Your task to perform on an android device: When is my next meeting? Image 0: 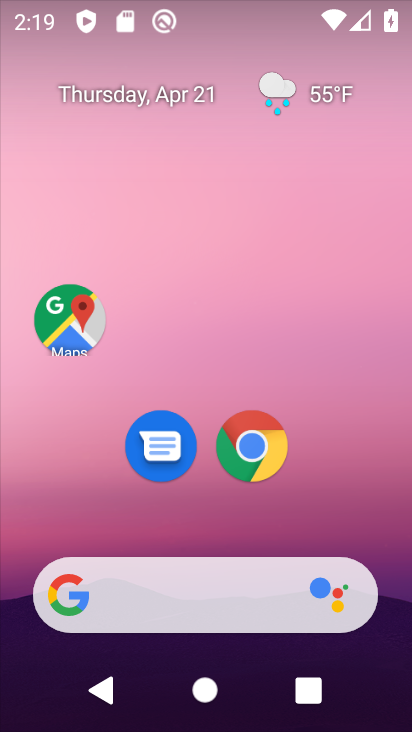
Step 0: drag from (203, 669) to (201, 93)
Your task to perform on an android device: When is my next meeting? Image 1: 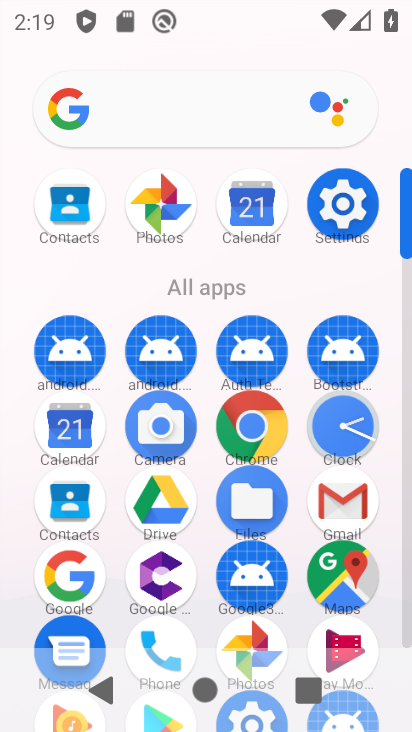
Step 1: click (68, 433)
Your task to perform on an android device: When is my next meeting? Image 2: 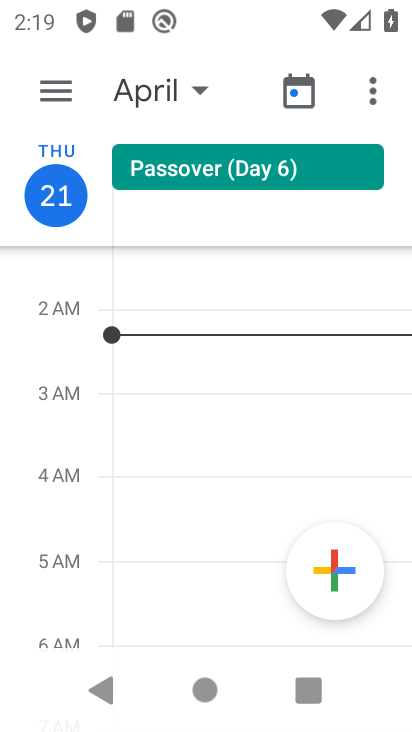
Step 2: click (56, 87)
Your task to perform on an android device: When is my next meeting? Image 3: 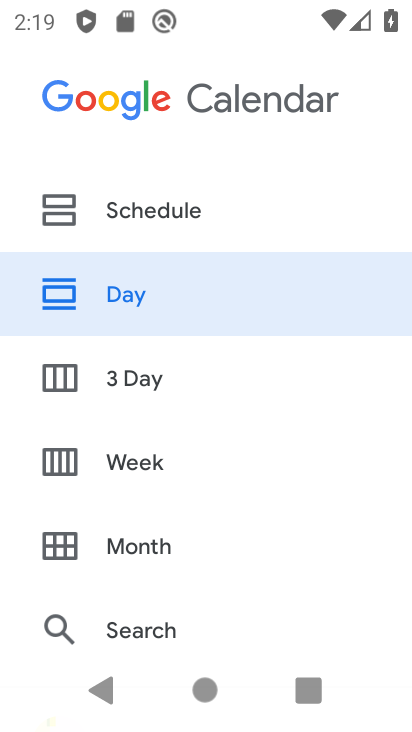
Step 3: drag from (157, 588) to (157, 250)
Your task to perform on an android device: When is my next meeting? Image 4: 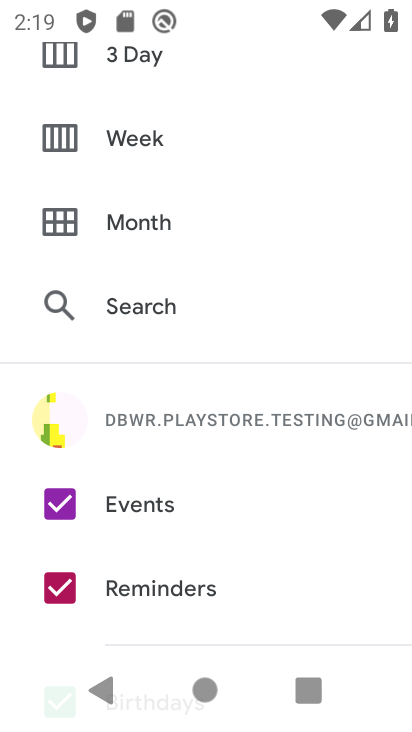
Step 4: drag from (206, 619) to (204, 255)
Your task to perform on an android device: When is my next meeting? Image 5: 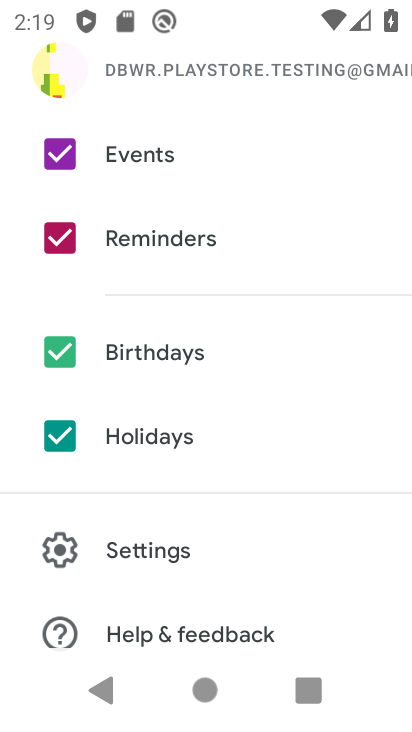
Step 5: click (59, 432)
Your task to perform on an android device: When is my next meeting? Image 6: 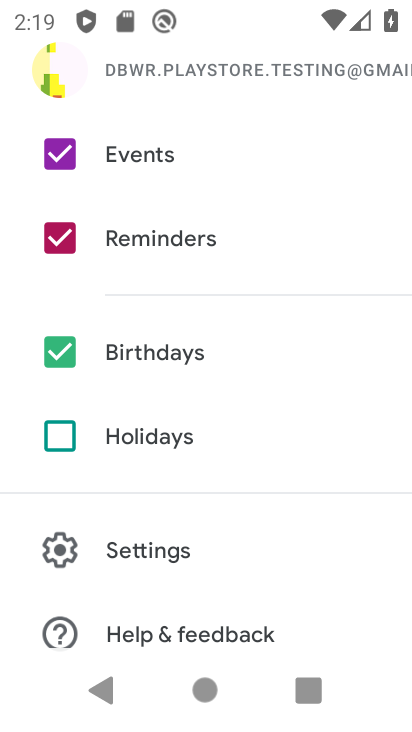
Step 6: click (55, 344)
Your task to perform on an android device: When is my next meeting? Image 7: 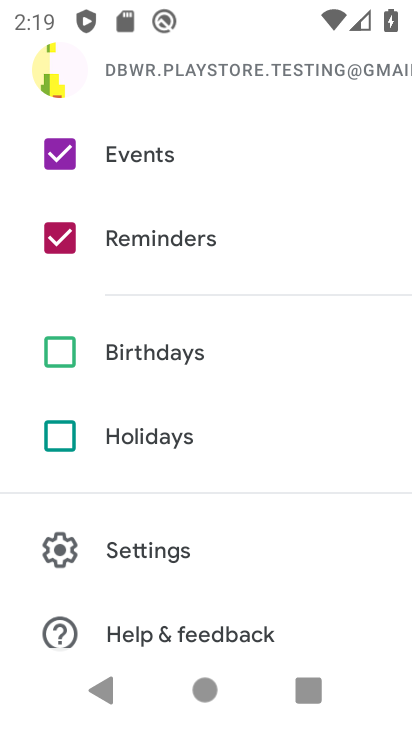
Step 7: click (60, 236)
Your task to perform on an android device: When is my next meeting? Image 8: 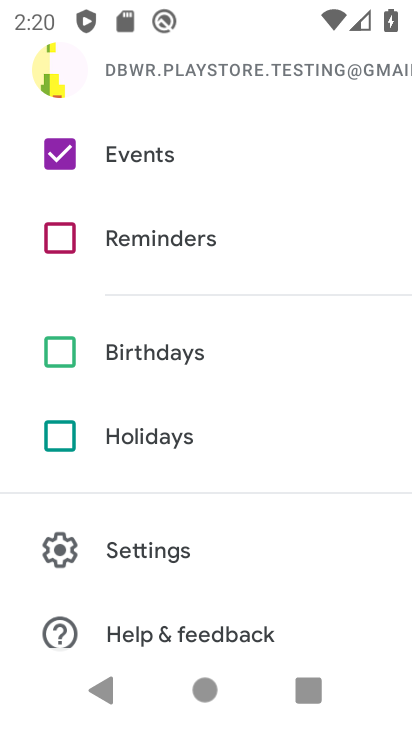
Step 8: drag from (264, 209) to (284, 410)
Your task to perform on an android device: When is my next meeting? Image 9: 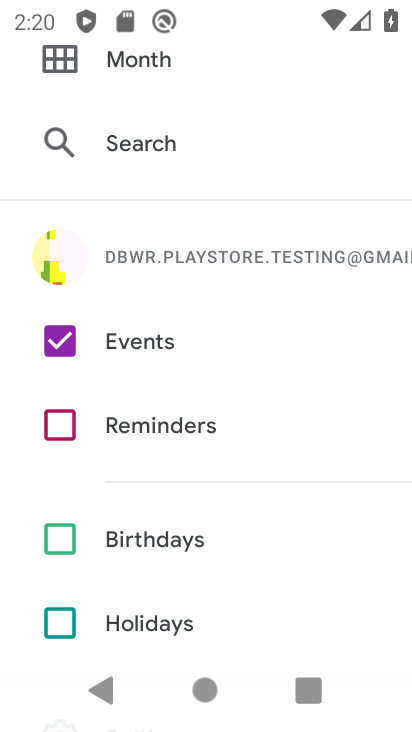
Step 9: drag from (264, 147) to (264, 483)
Your task to perform on an android device: When is my next meeting? Image 10: 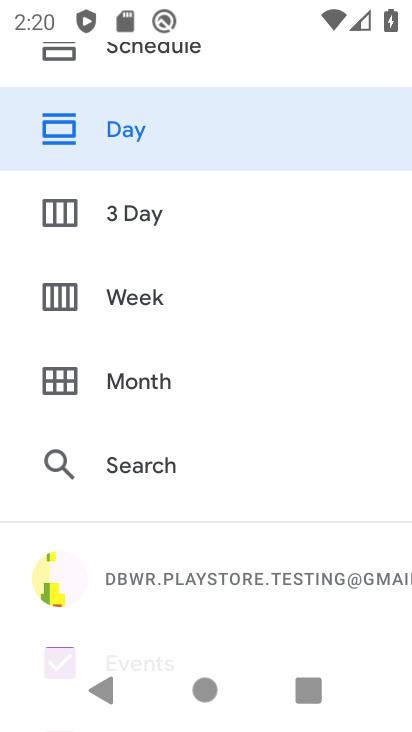
Step 10: click (181, 53)
Your task to perform on an android device: When is my next meeting? Image 11: 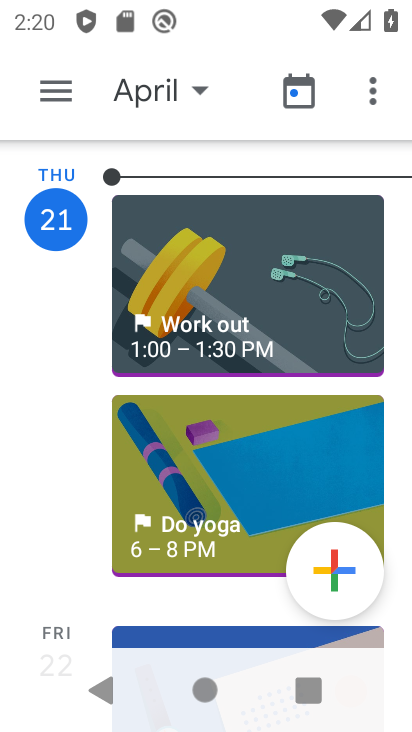
Step 11: task complete